Your task to perform on an android device: manage bookmarks in the chrome app Image 0: 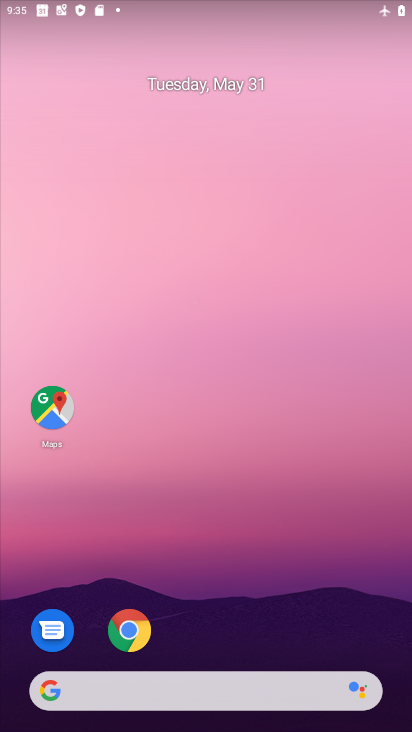
Step 0: drag from (200, 603) to (286, 180)
Your task to perform on an android device: manage bookmarks in the chrome app Image 1: 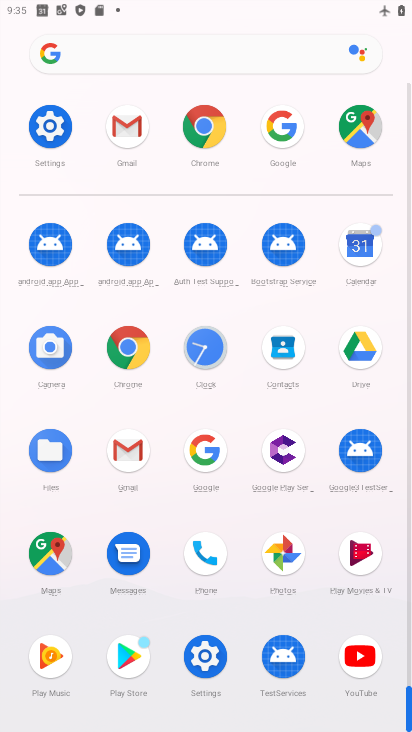
Step 1: click (125, 350)
Your task to perform on an android device: manage bookmarks in the chrome app Image 2: 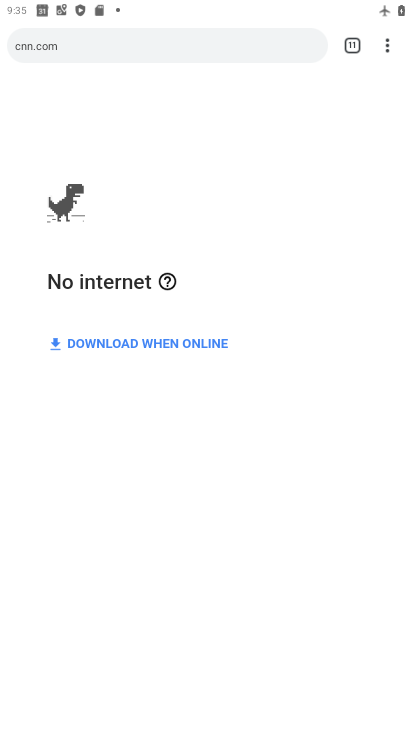
Step 2: click (394, 40)
Your task to perform on an android device: manage bookmarks in the chrome app Image 3: 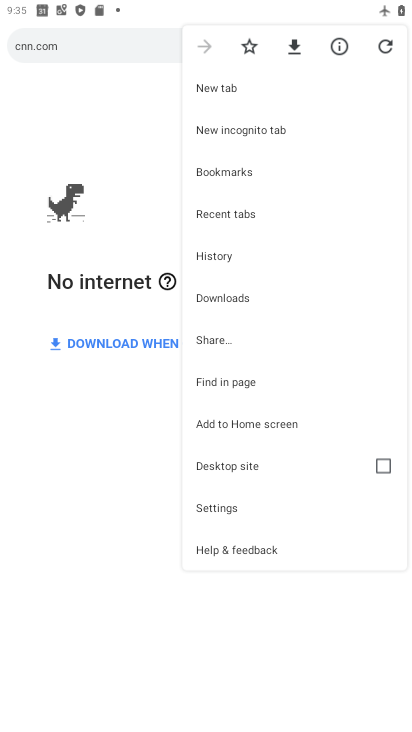
Step 3: click (256, 171)
Your task to perform on an android device: manage bookmarks in the chrome app Image 4: 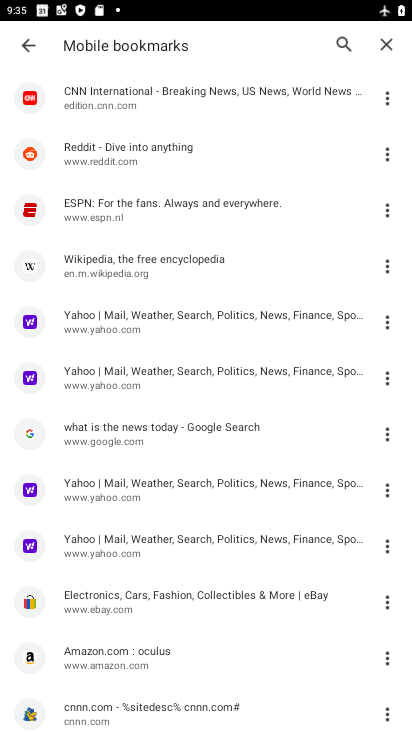
Step 4: click (119, 266)
Your task to perform on an android device: manage bookmarks in the chrome app Image 5: 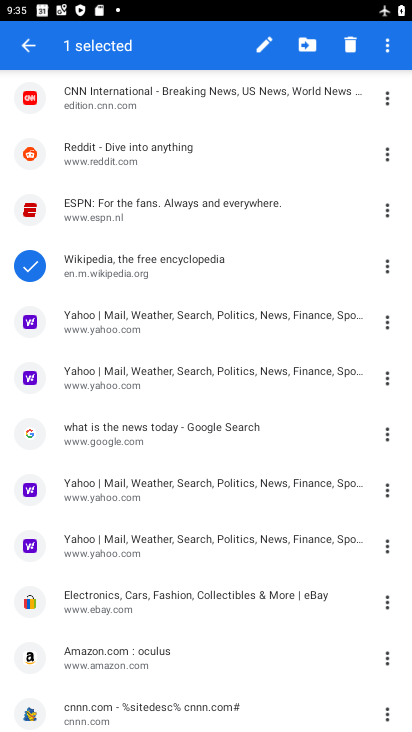
Step 5: click (307, 37)
Your task to perform on an android device: manage bookmarks in the chrome app Image 6: 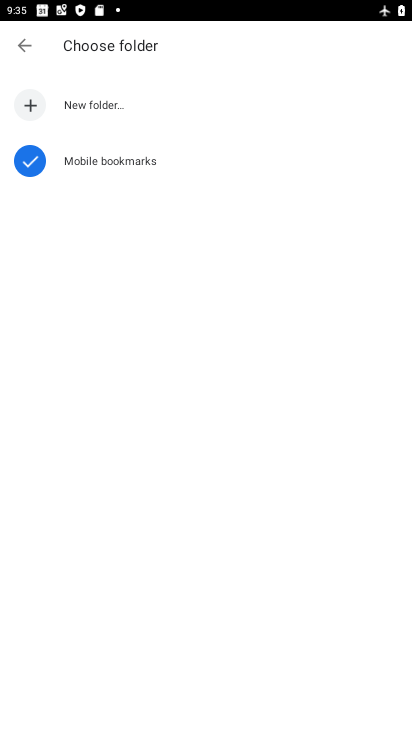
Step 6: click (104, 112)
Your task to perform on an android device: manage bookmarks in the chrome app Image 7: 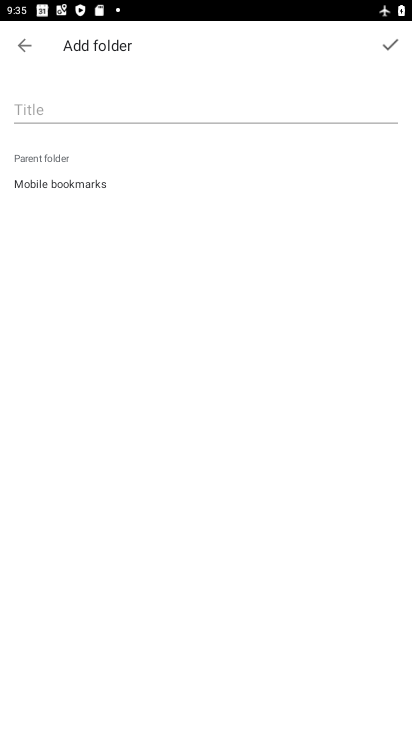
Step 7: click (108, 109)
Your task to perform on an android device: manage bookmarks in the chrome app Image 8: 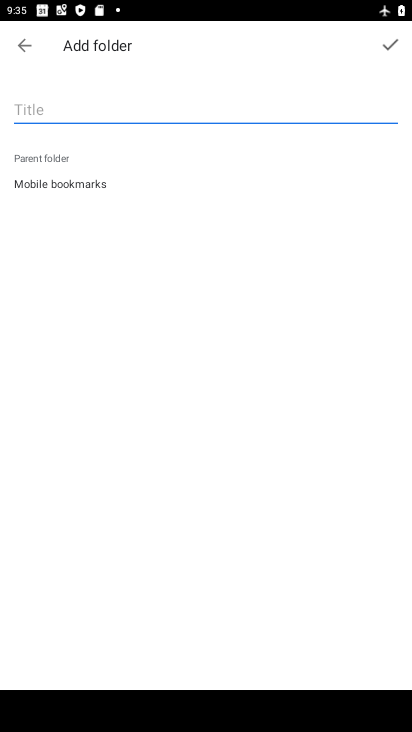
Step 8: type "gffggfgfgfdddd"
Your task to perform on an android device: manage bookmarks in the chrome app Image 9: 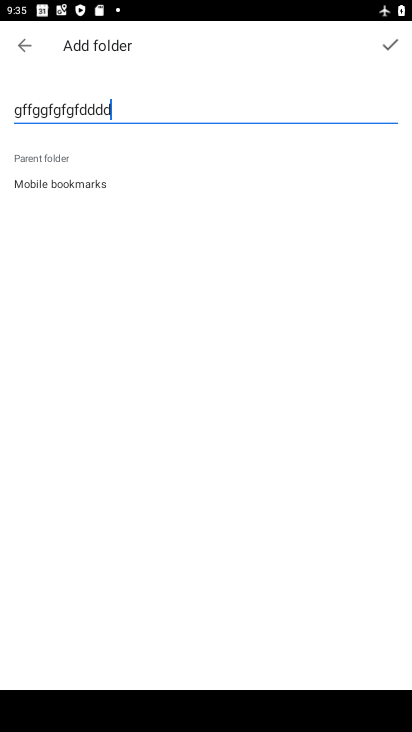
Step 9: click (389, 35)
Your task to perform on an android device: manage bookmarks in the chrome app Image 10: 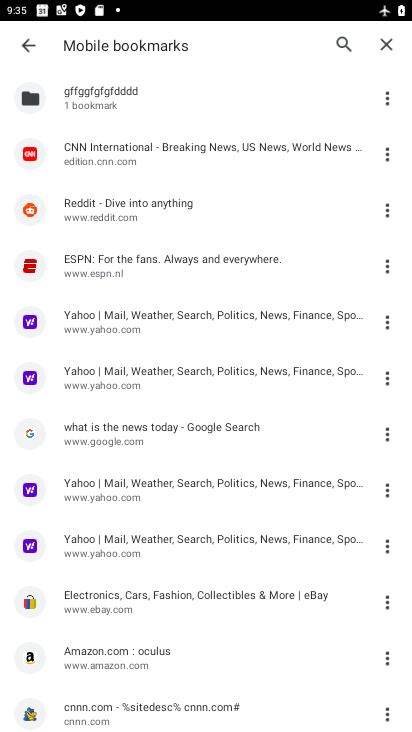
Step 10: task complete